Your task to perform on an android device: add a contact in the contacts app Image 0: 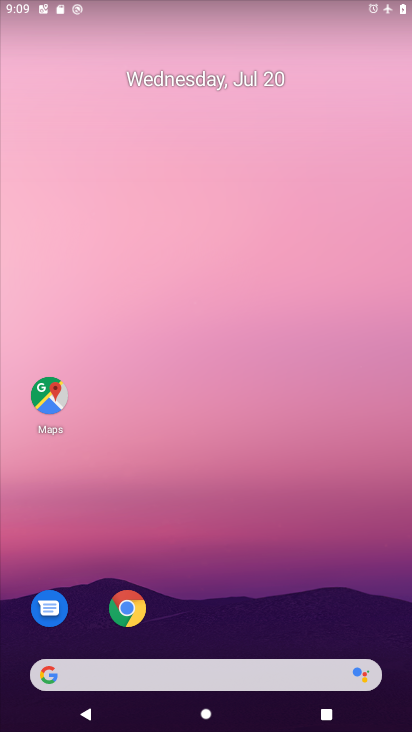
Step 0: drag from (209, 591) to (210, 202)
Your task to perform on an android device: add a contact in the contacts app Image 1: 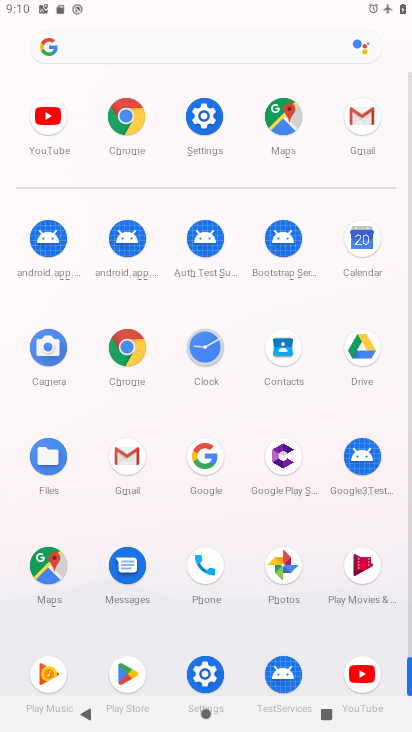
Step 1: click (206, 569)
Your task to perform on an android device: add a contact in the contacts app Image 2: 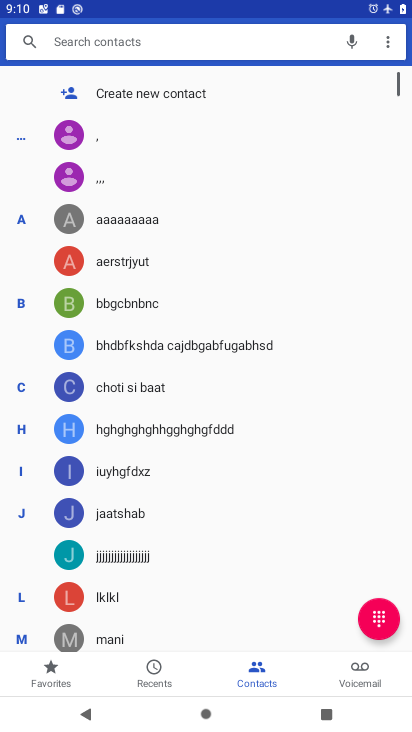
Step 2: click (122, 86)
Your task to perform on an android device: add a contact in the contacts app Image 3: 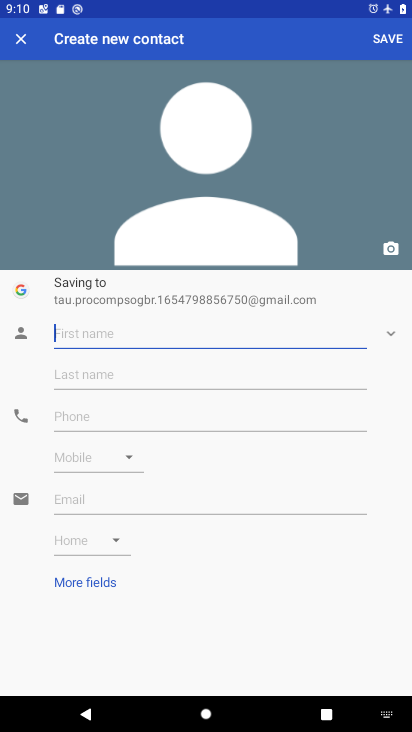
Step 3: click (121, 316)
Your task to perform on an android device: add a contact in the contacts app Image 4: 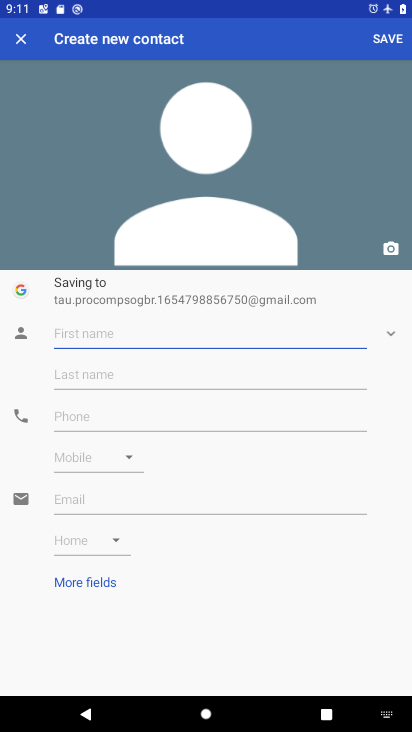
Step 4: type "rahul parajapatii  "
Your task to perform on an android device: add a contact in the contacts app Image 5: 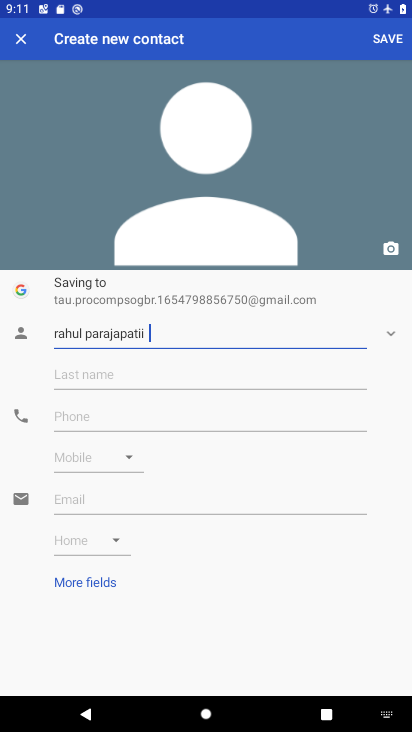
Step 5: click (132, 412)
Your task to perform on an android device: add a contact in the contacts app Image 6: 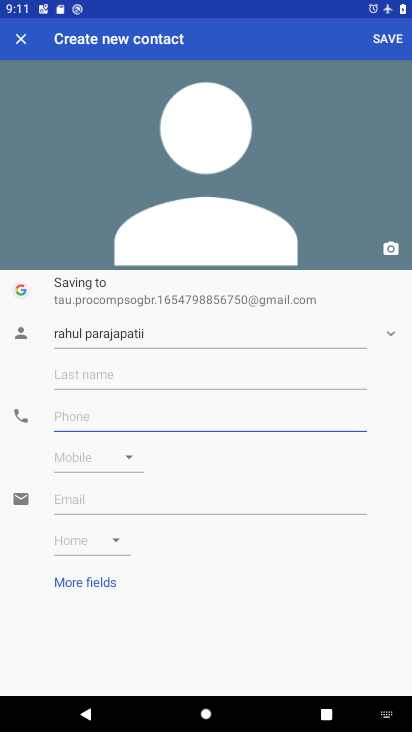
Step 6: type "767676767676767 "
Your task to perform on an android device: add a contact in the contacts app Image 7: 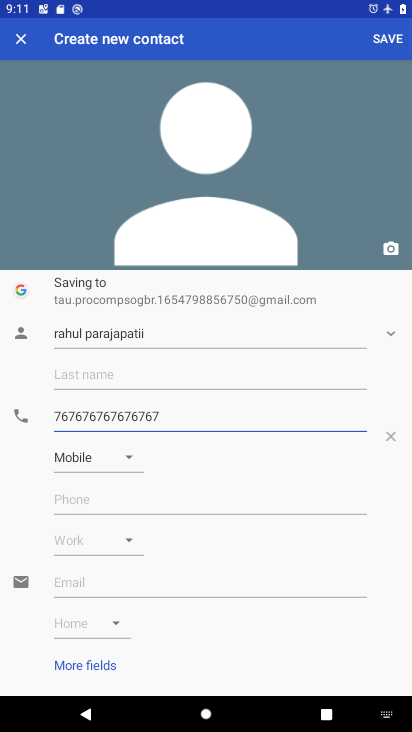
Step 7: click (392, 47)
Your task to perform on an android device: add a contact in the contacts app Image 8: 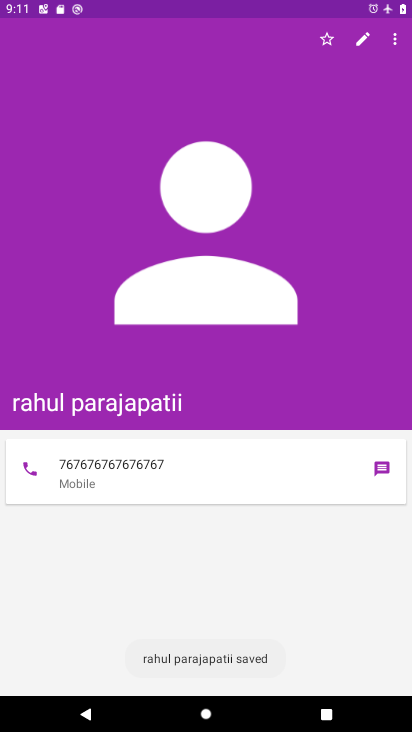
Step 8: task complete